Your task to perform on an android device: Open network settings Image 0: 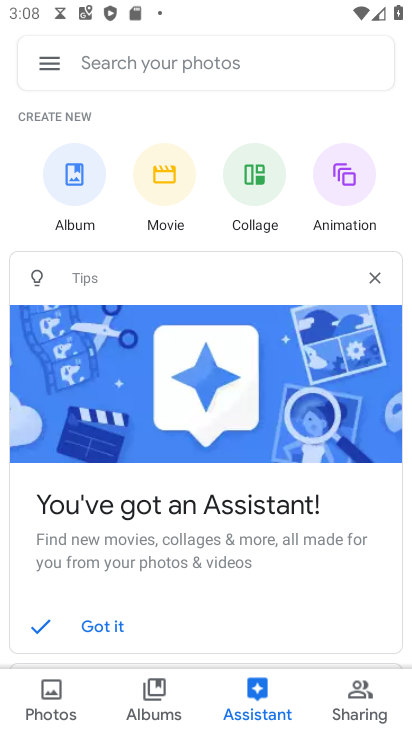
Step 0: press home button
Your task to perform on an android device: Open network settings Image 1: 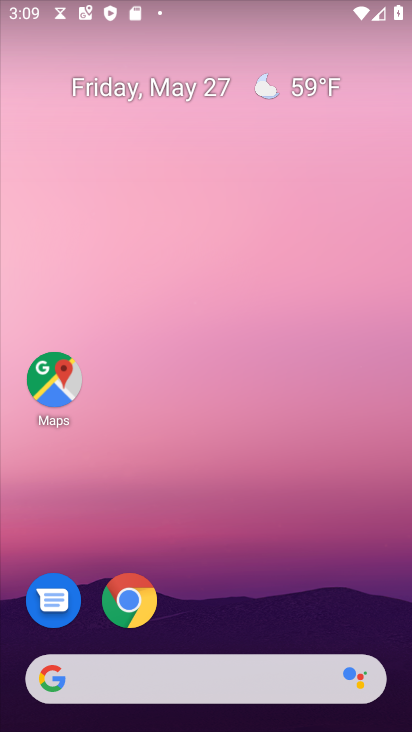
Step 1: drag from (290, 586) to (217, 104)
Your task to perform on an android device: Open network settings Image 2: 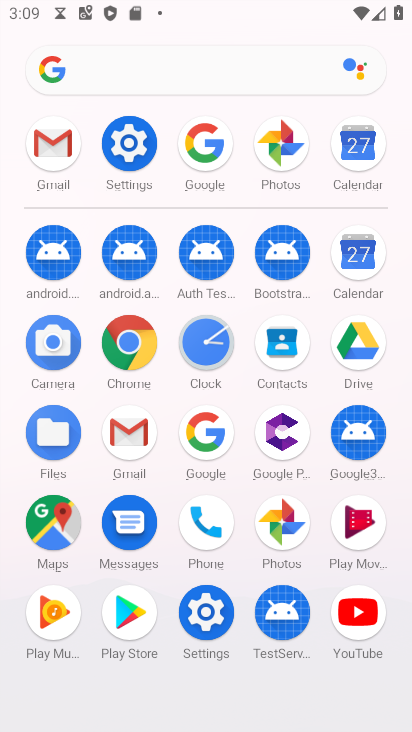
Step 2: click (131, 143)
Your task to perform on an android device: Open network settings Image 3: 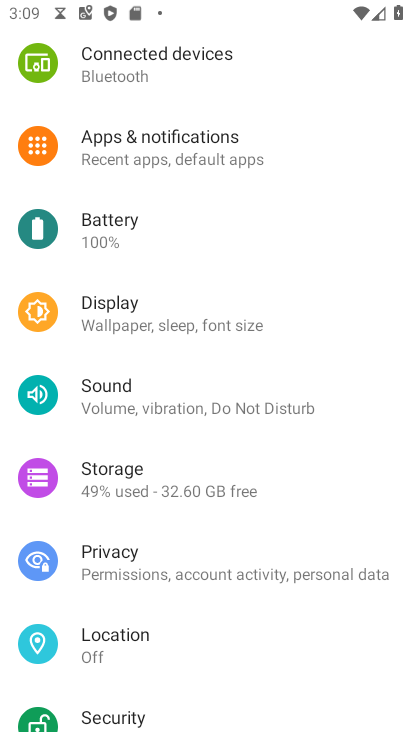
Step 3: drag from (203, 214) to (209, 334)
Your task to perform on an android device: Open network settings Image 4: 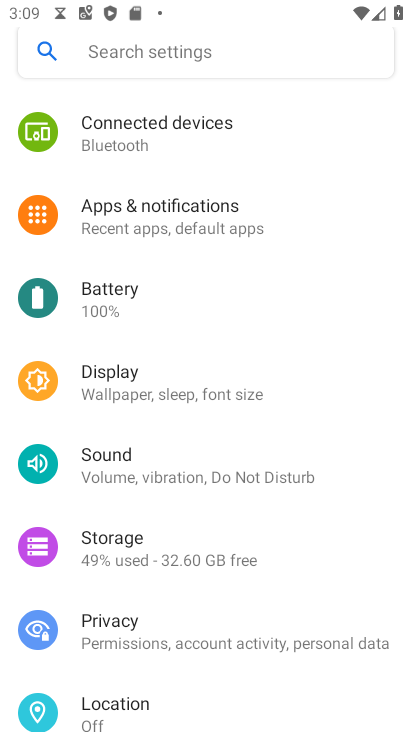
Step 4: drag from (203, 166) to (187, 333)
Your task to perform on an android device: Open network settings Image 5: 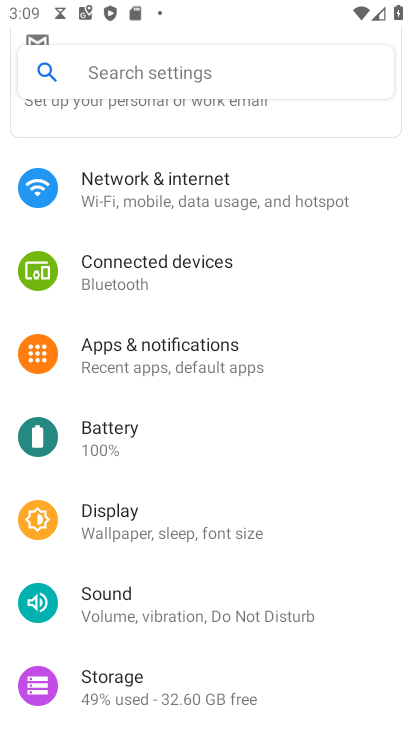
Step 5: click (187, 198)
Your task to perform on an android device: Open network settings Image 6: 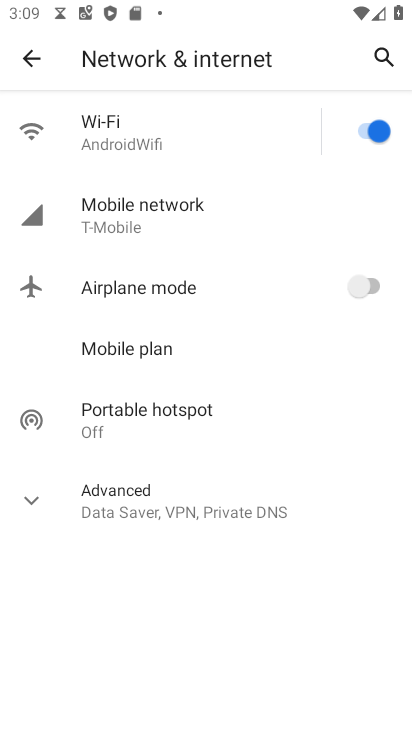
Step 6: click (116, 132)
Your task to perform on an android device: Open network settings Image 7: 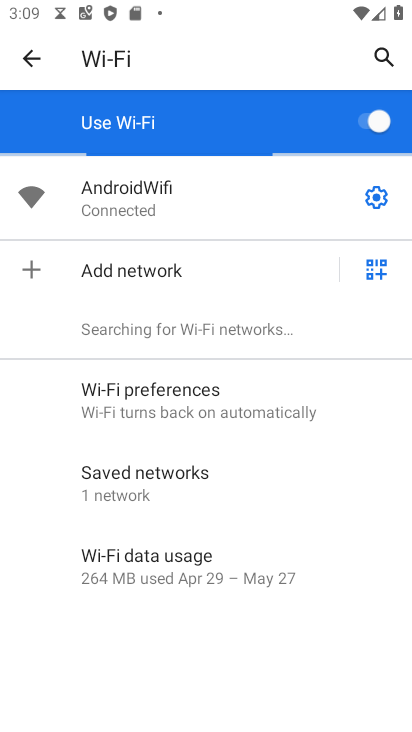
Step 7: task complete